Your task to perform on an android device: refresh tabs in the chrome app Image 0: 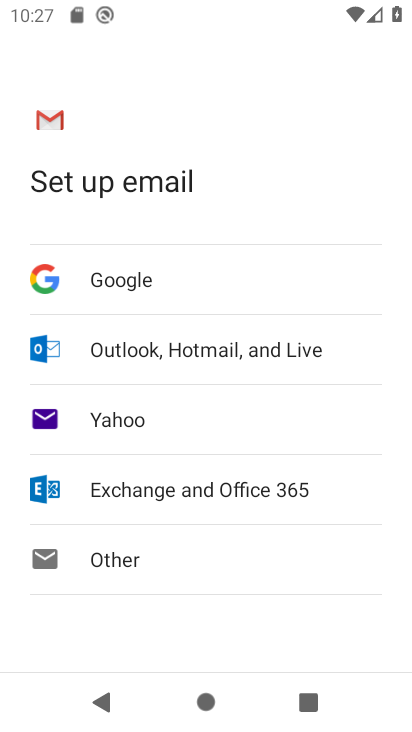
Step 0: press home button
Your task to perform on an android device: refresh tabs in the chrome app Image 1: 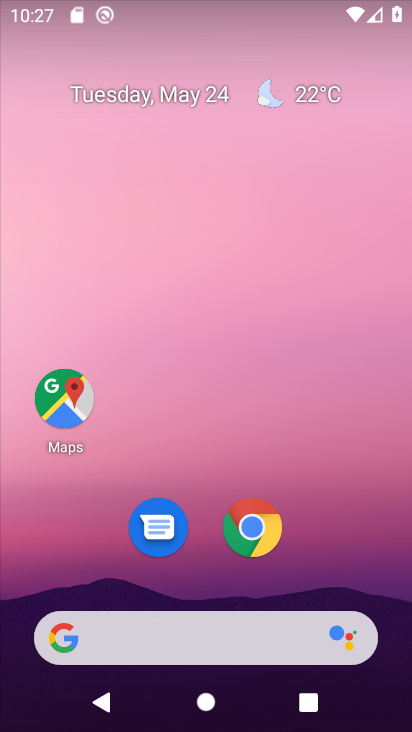
Step 1: click (261, 538)
Your task to perform on an android device: refresh tabs in the chrome app Image 2: 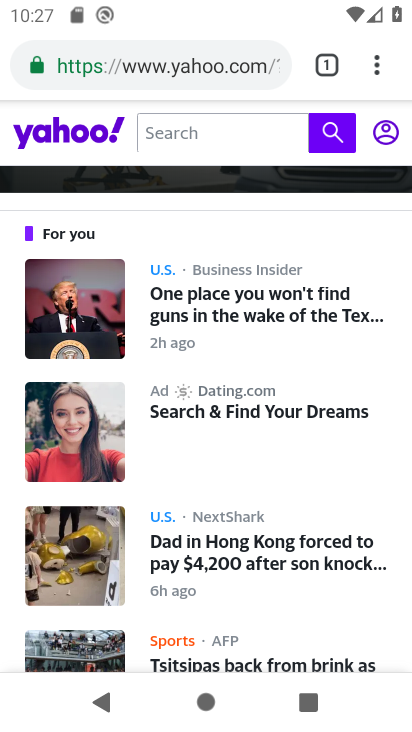
Step 2: click (372, 80)
Your task to perform on an android device: refresh tabs in the chrome app Image 3: 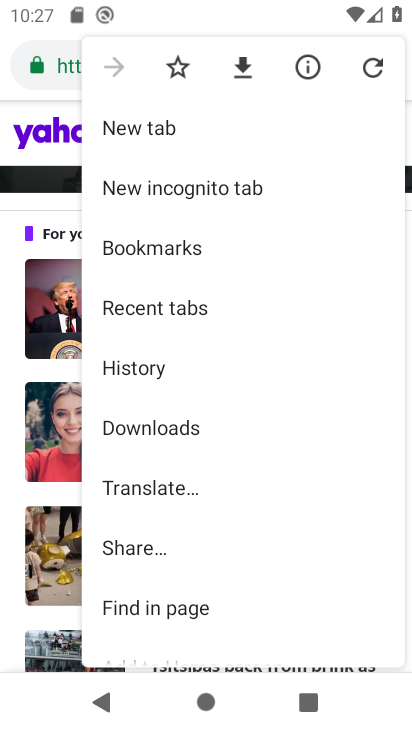
Step 3: click (366, 72)
Your task to perform on an android device: refresh tabs in the chrome app Image 4: 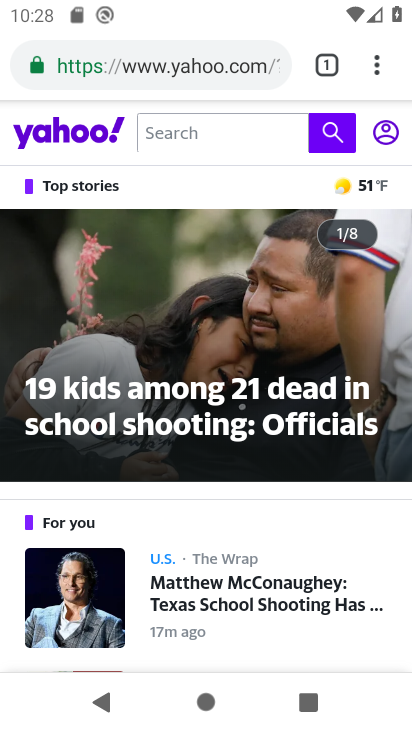
Step 4: task complete